Your task to perform on an android device: Open battery settings Image 0: 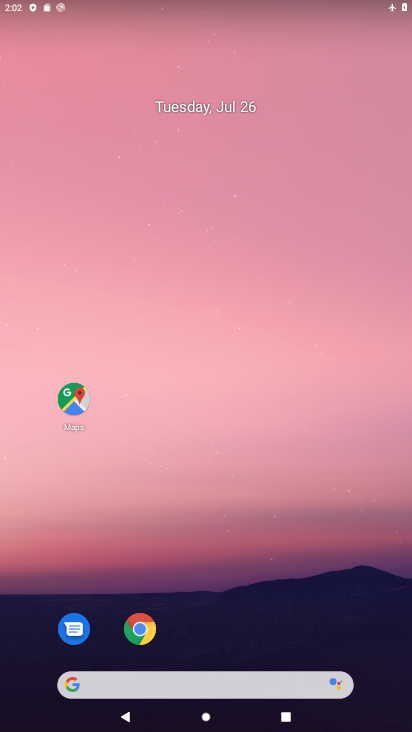
Step 0: drag from (246, 670) to (293, 85)
Your task to perform on an android device: Open battery settings Image 1: 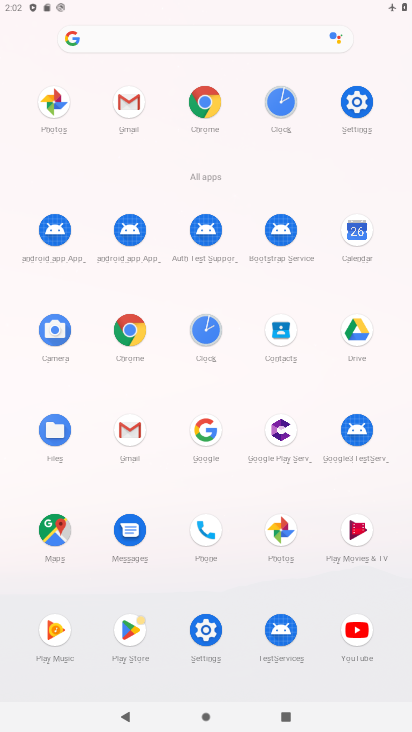
Step 1: click (354, 102)
Your task to perform on an android device: Open battery settings Image 2: 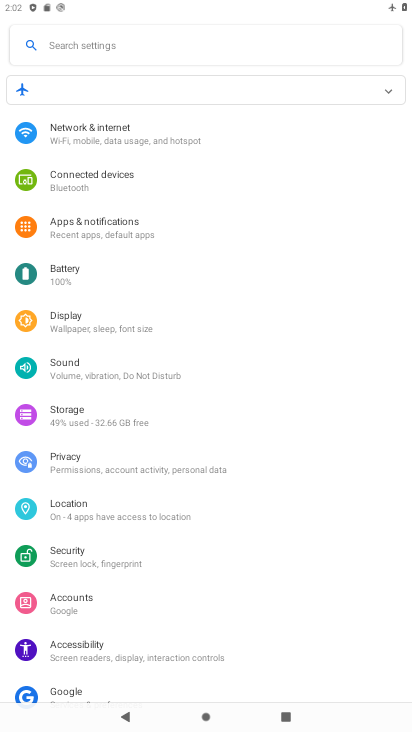
Step 2: click (70, 274)
Your task to perform on an android device: Open battery settings Image 3: 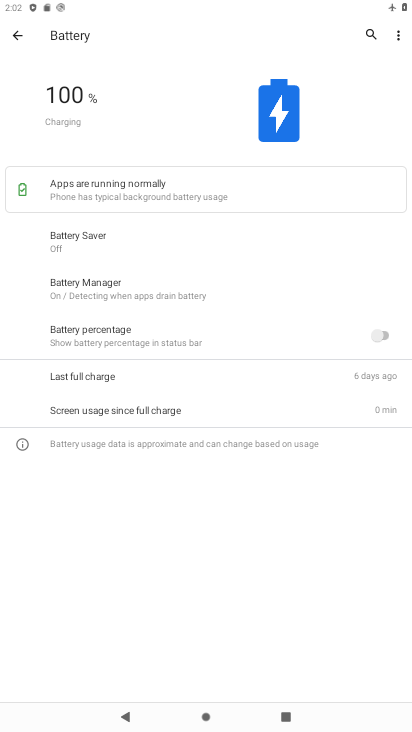
Step 3: task complete